Your task to perform on an android device: toggle notifications settings in the gmail app Image 0: 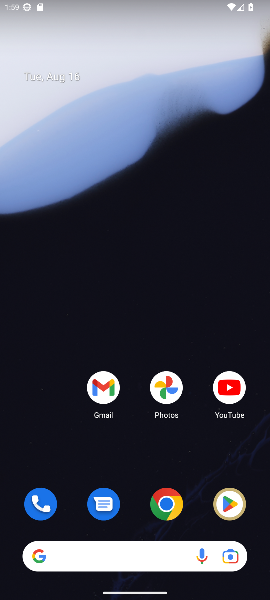
Step 0: click (103, 390)
Your task to perform on an android device: toggle notifications settings in the gmail app Image 1: 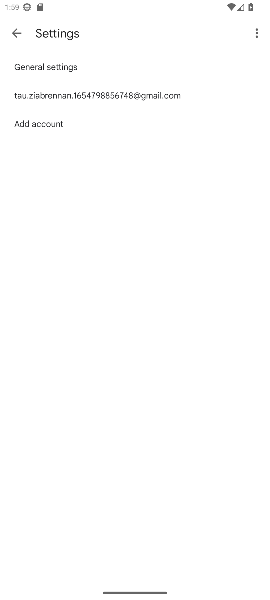
Step 1: click (51, 66)
Your task to perform on an android device: toggle notifications settings in the gmail app Image 2: 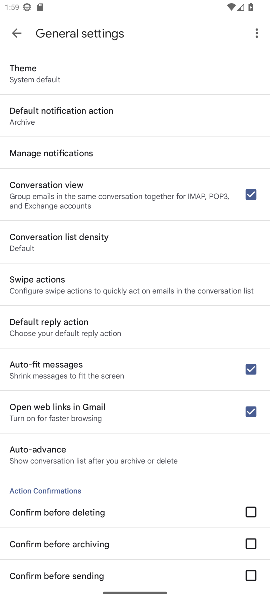
Step 2: click (48, 150)
Your task to perform on an android device: toggle notifications settings in the gmail app Image 3: 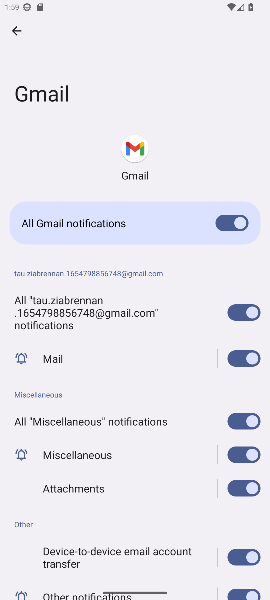
Step 3: click (237, 224)
Your task to perform on an android device: toggle notifications settings in the gmail app Image 4: 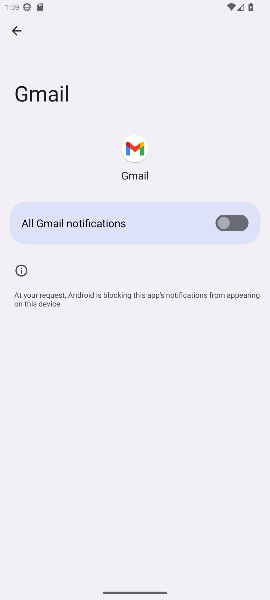
Step 4: task complete